Your task to perform on an android device: Go to Yahoo.com Image 0: 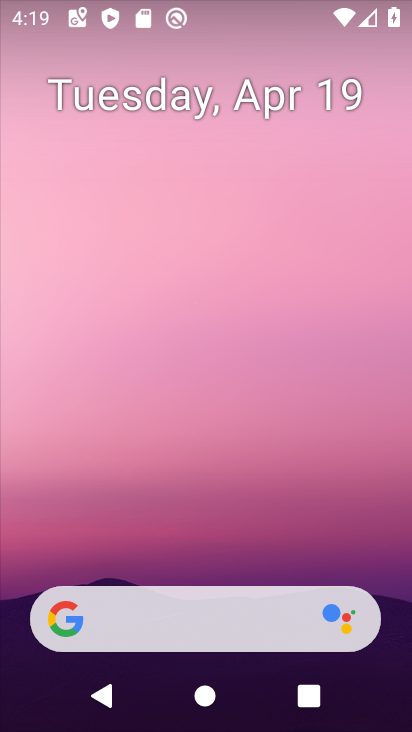
Step 0: drag from (190, 539) to (261, 158)
Your task to perform on an android device: Go to Yahoo.com Image 1: 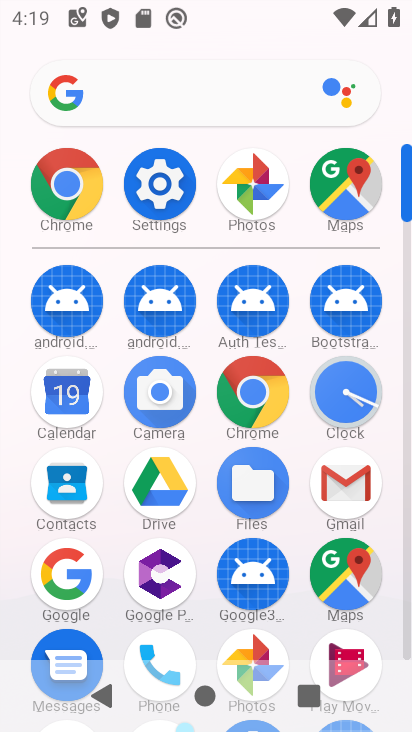
Step 1: click (68, 177)
Your task to perform on an android device: Go to Yahoo.com Image 2: 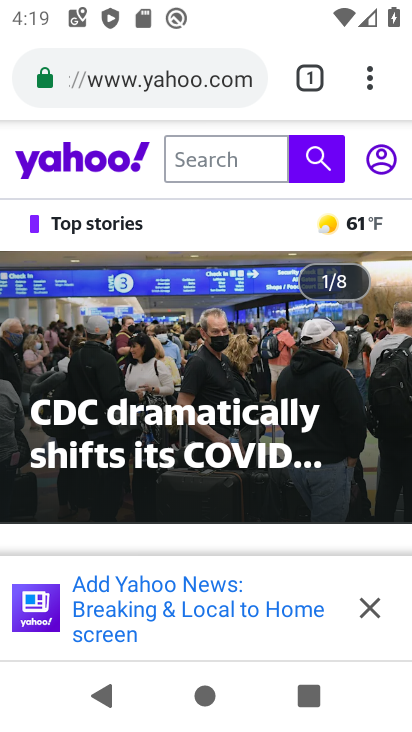
Step 2: task complete